Your task to perform on an android device: Set the phone to "Do not disturb". Image 0: 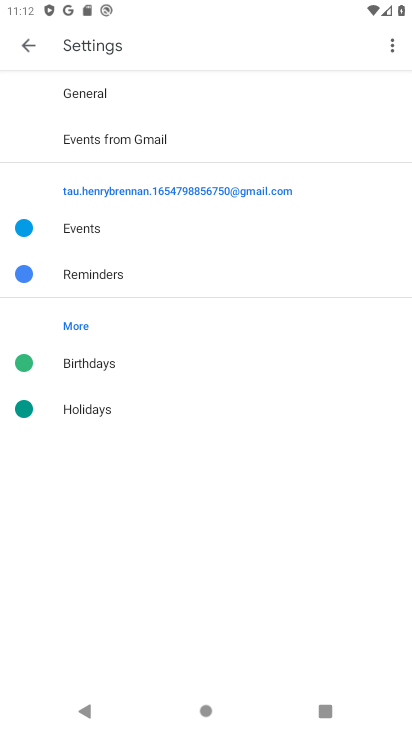
Step 0: press home button
Your task to perform on an android device: Set the phone to "Do not disturb". Image 1: 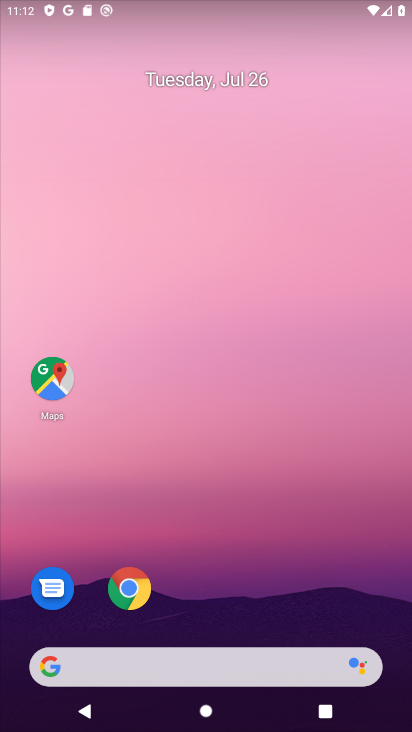
Step 1: drag from (280, 631) to (218, 131)
Your task to perform on an android device: Set the phone to "Do not disturb". Image 2: 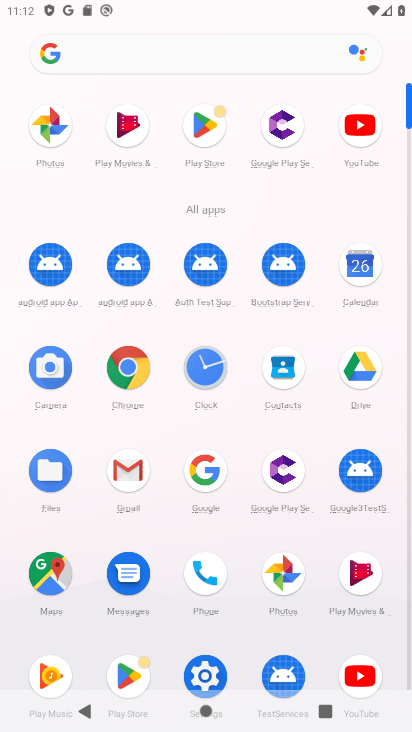
Step 2: click (212, 679)
Your task to perform on an android device: Set the phone to "Do not disturb". Image 3: 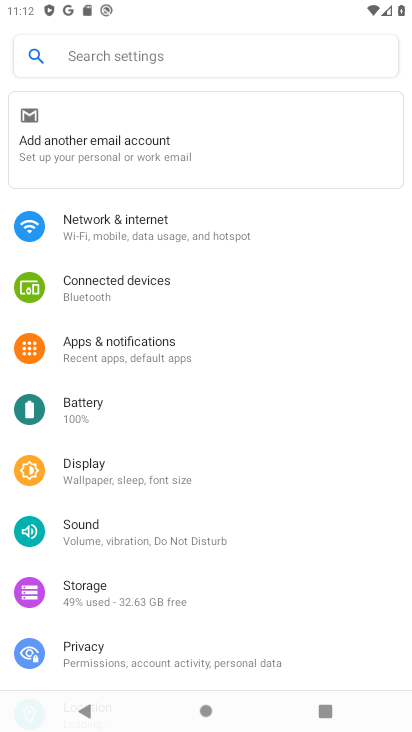
Step 3: click (107, 63)
Your task to perform on an android device: Set the phone to "Do not disturb". Image 4: 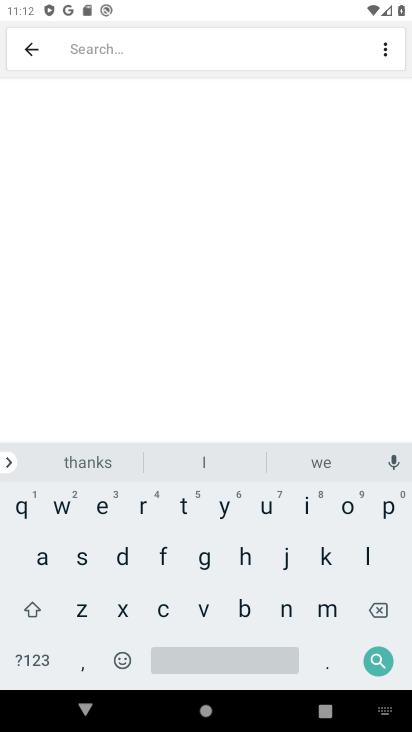
Step 4: click (119, 559)
Your task to perform on an android device: Set the phone to "Do not disturb". Image 5: 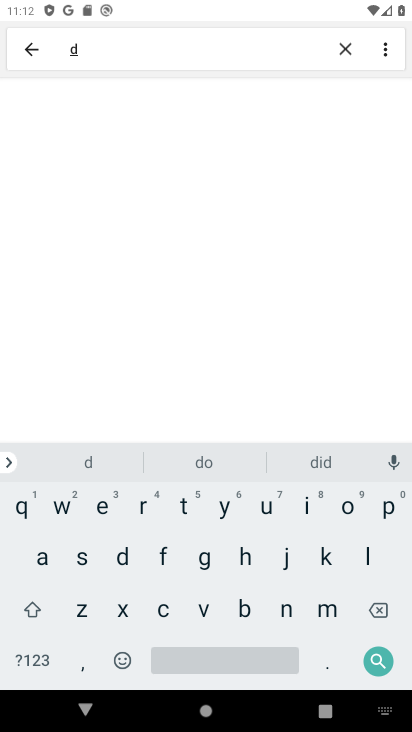
Step 5: click (296, 627)
Your task to perform on an android device: Set the phone to "Do not disturb". Image 6: 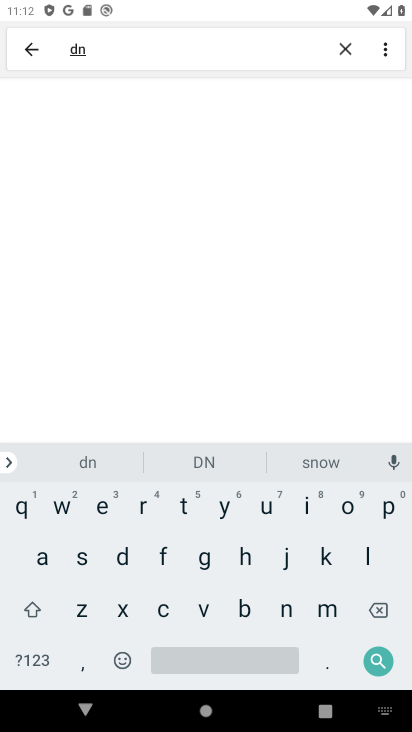
Step 6: click (124, 557)
Your task to perform on an android device: Set the phone to "Do not disturb". Image 7: 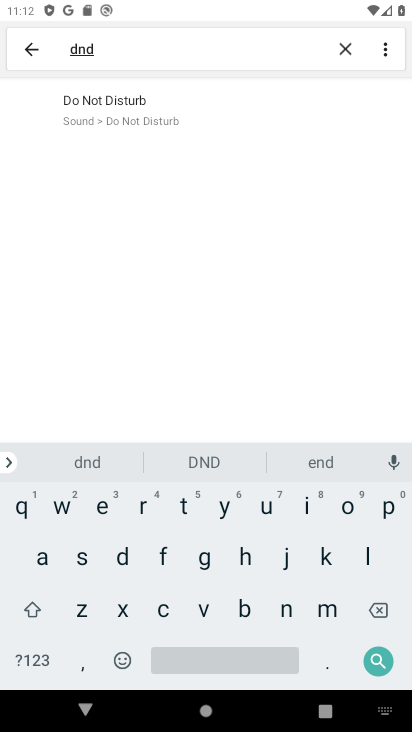
Step 7: click (135, 112)
Your task to perform on an android device: Set the phone to "Do not disturb". Image 8: 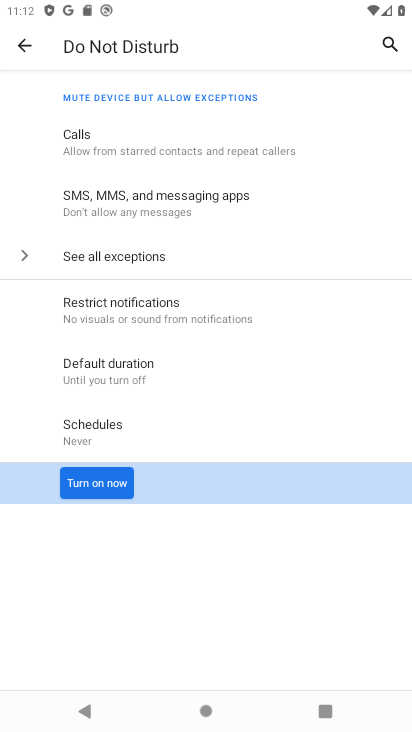
Step 8: click (106, 482)
Your task to perform on an android device: Set the phone to "Do not disturb". Image 9: 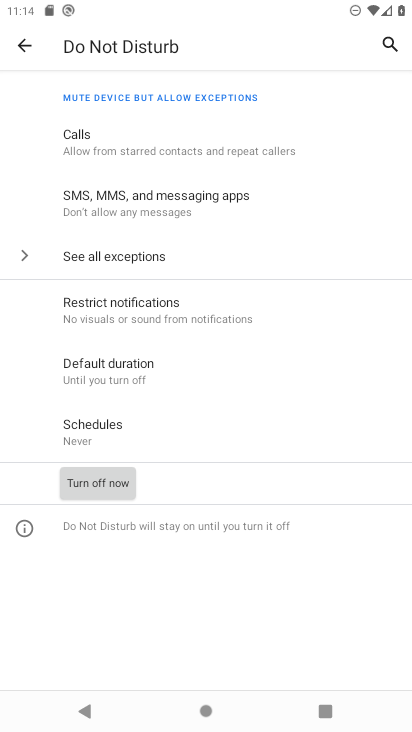
Step 9: task complete